Your task to perform on an android device: toggle sleep mode Image 0: 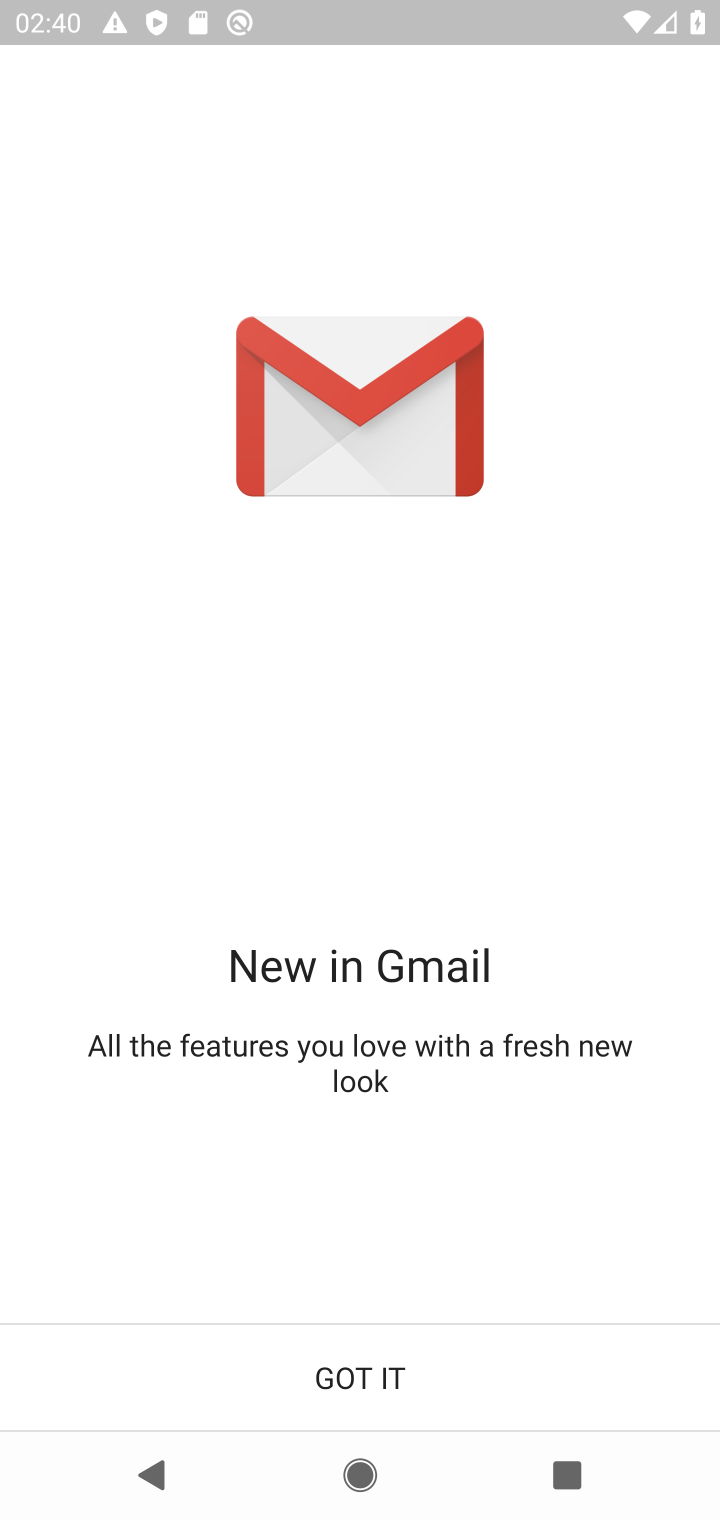
Step 0: press home button
Your task to perform on an android device: toggle sleep mode Image 1: 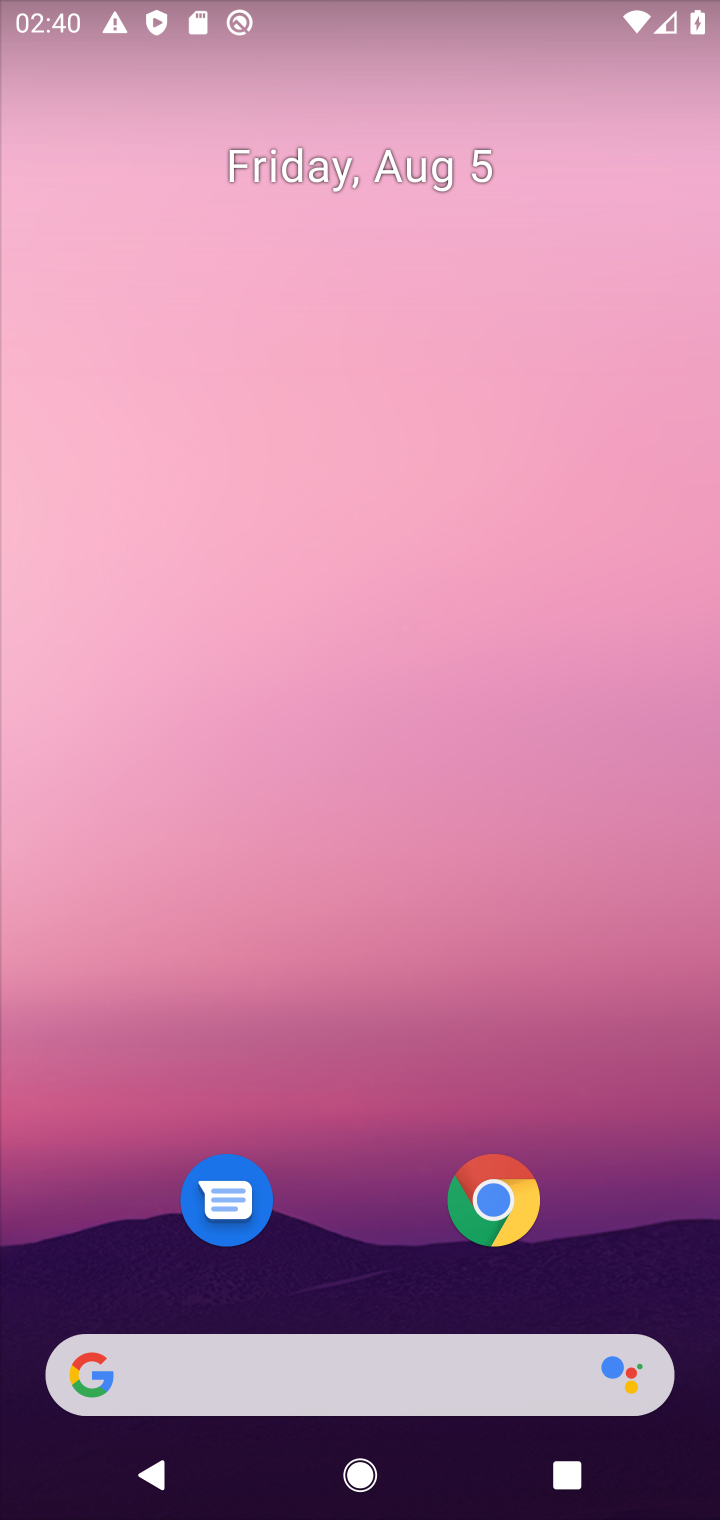
Step 1: drag from (394, 707) to (394, 302)
Your task to perform on an android device: toggle sleep mode Image 2: 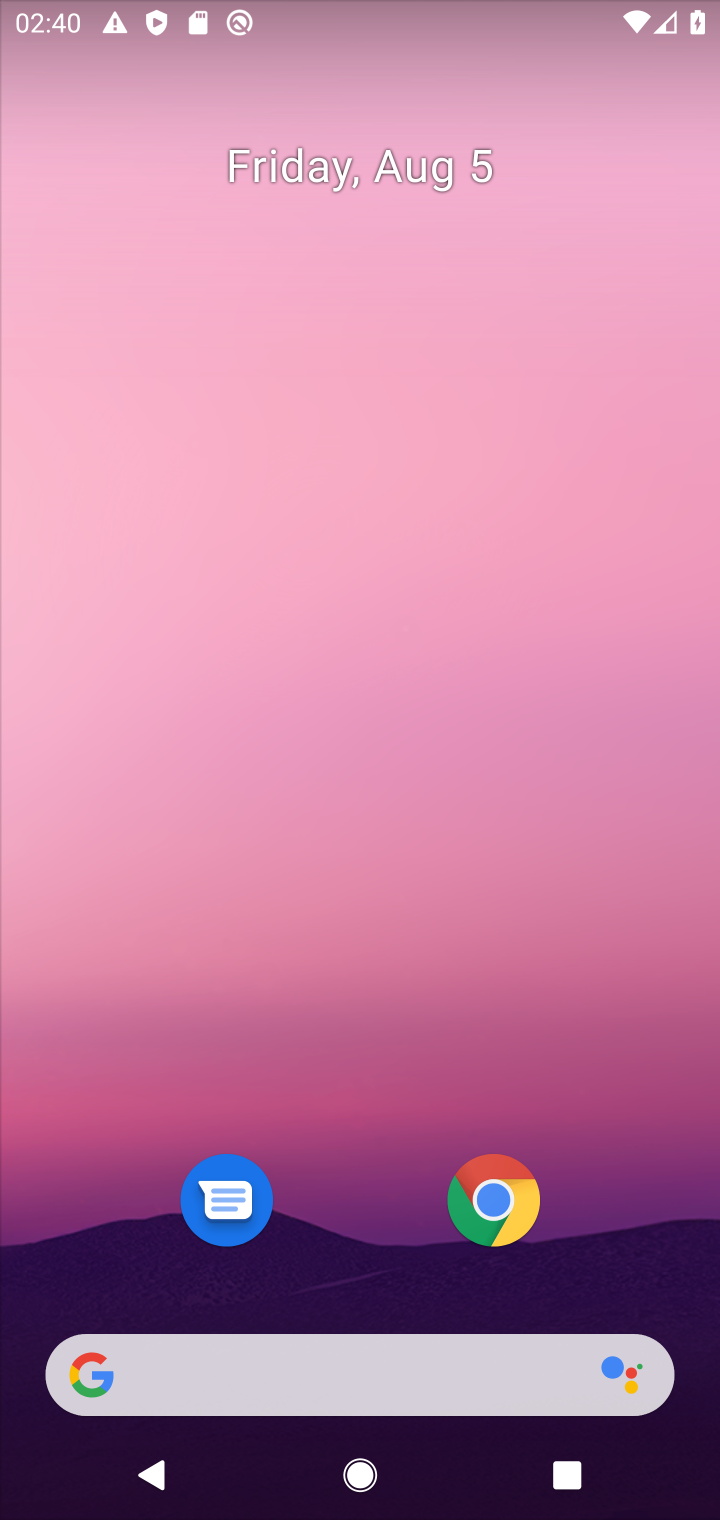
Step 2: drag from (364, 1194) to (387, 346)
Your task to perform on an android device: toggle sleep mode Image 3: 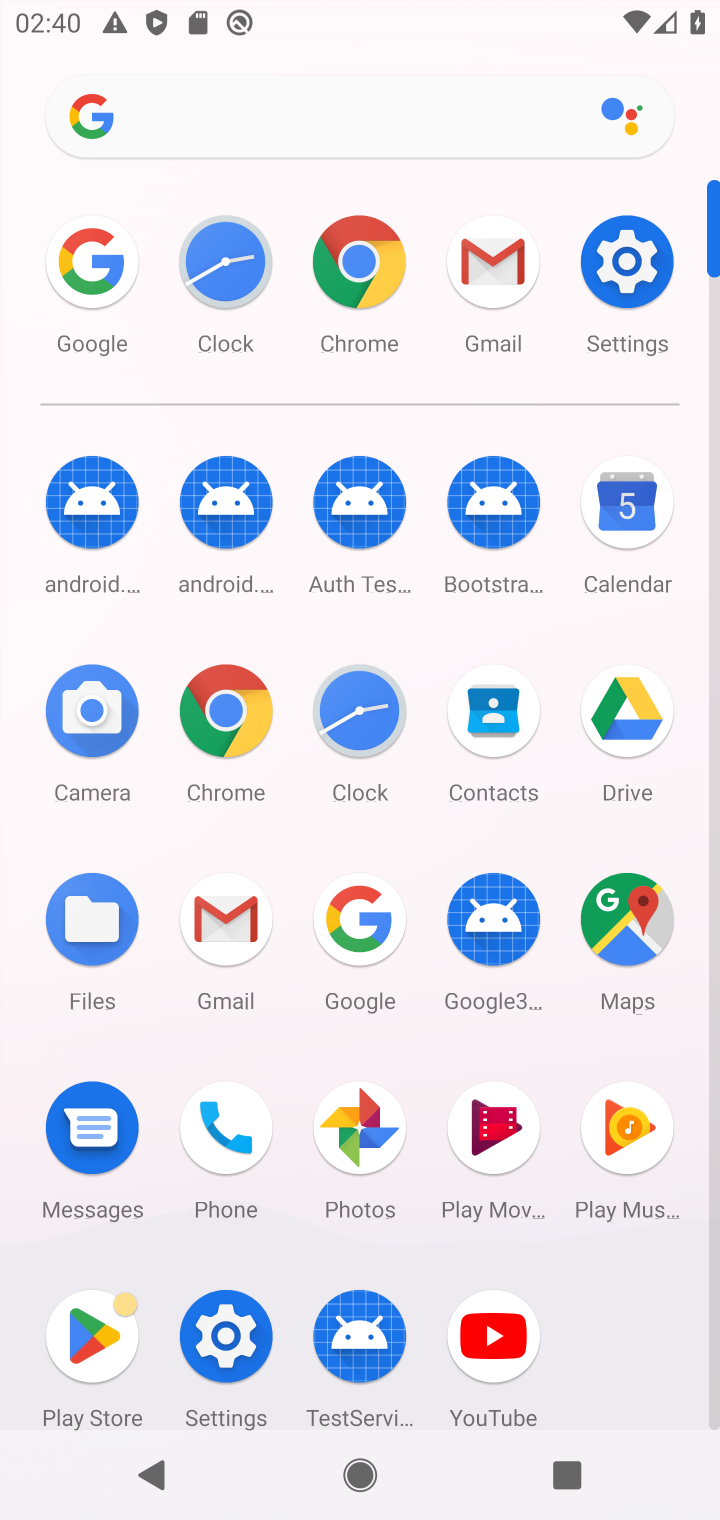
Step 3: click (597, 262)
Your task to perform on an android device: toggle sleep mode Image 4: 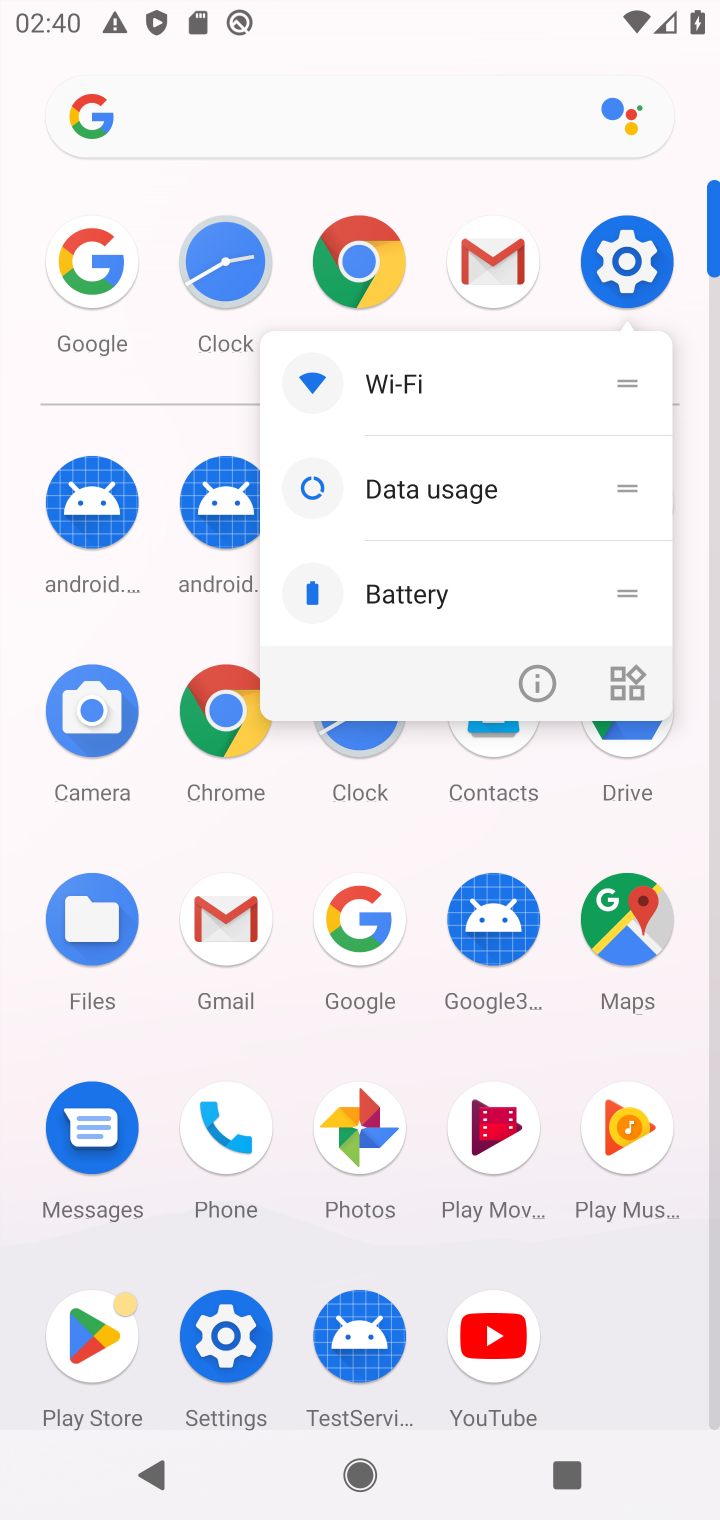
Step 4: click (597, 262)
Your task to perform on an android device: toggle sleep mode Image 5: 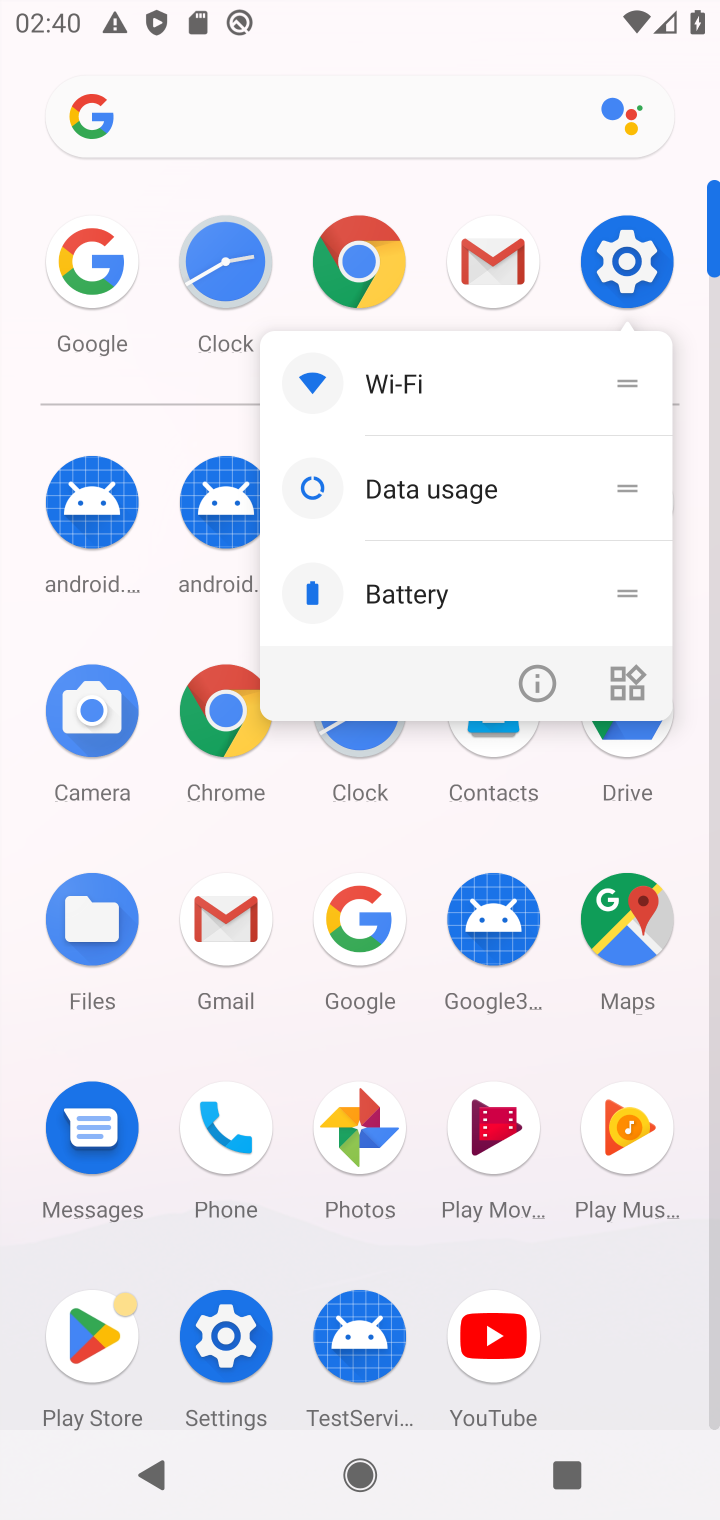
Step 5: click (611, 255)
Your task to perform on an android device: toggle sleep mode Image 6: 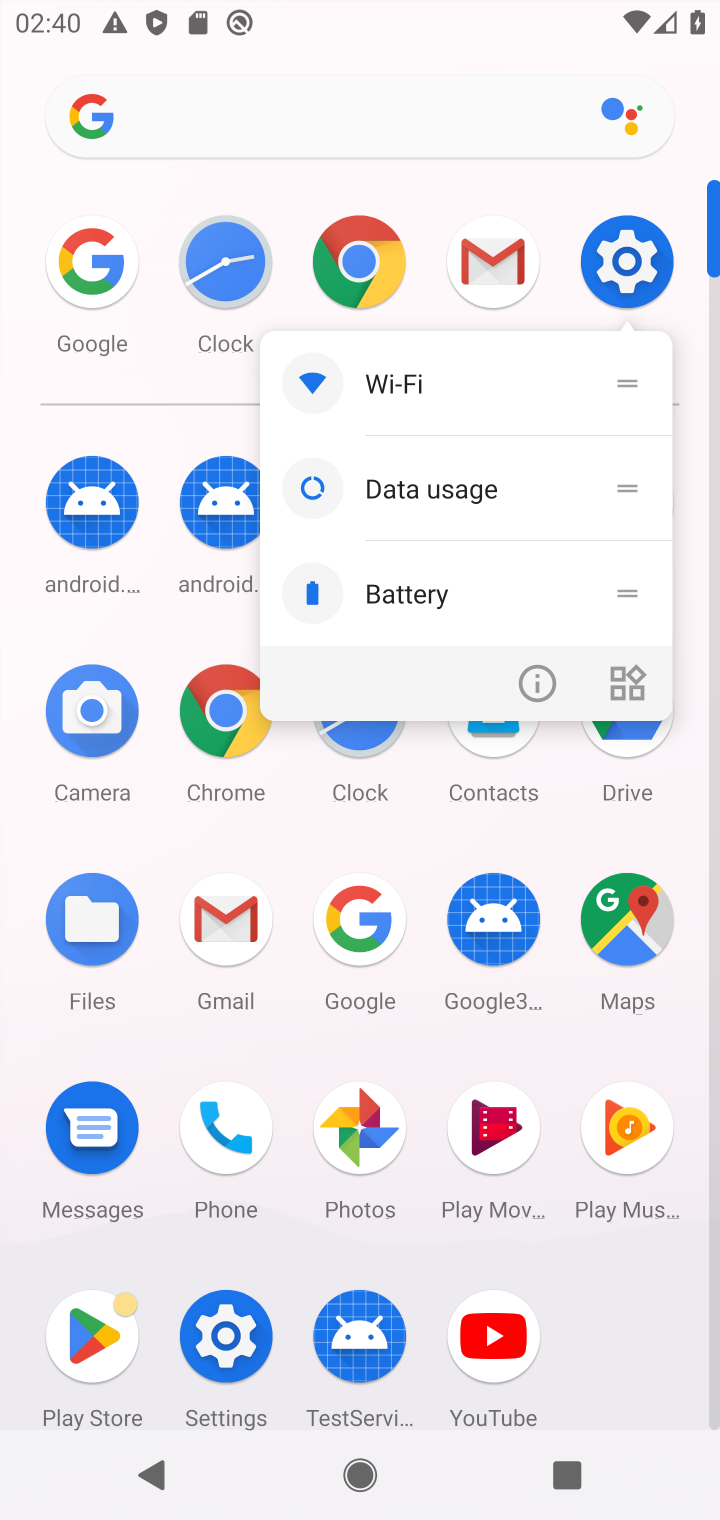
Step 6: click (611, 255)
Your task to perform on an android device: toggle sleep mode Image 7: 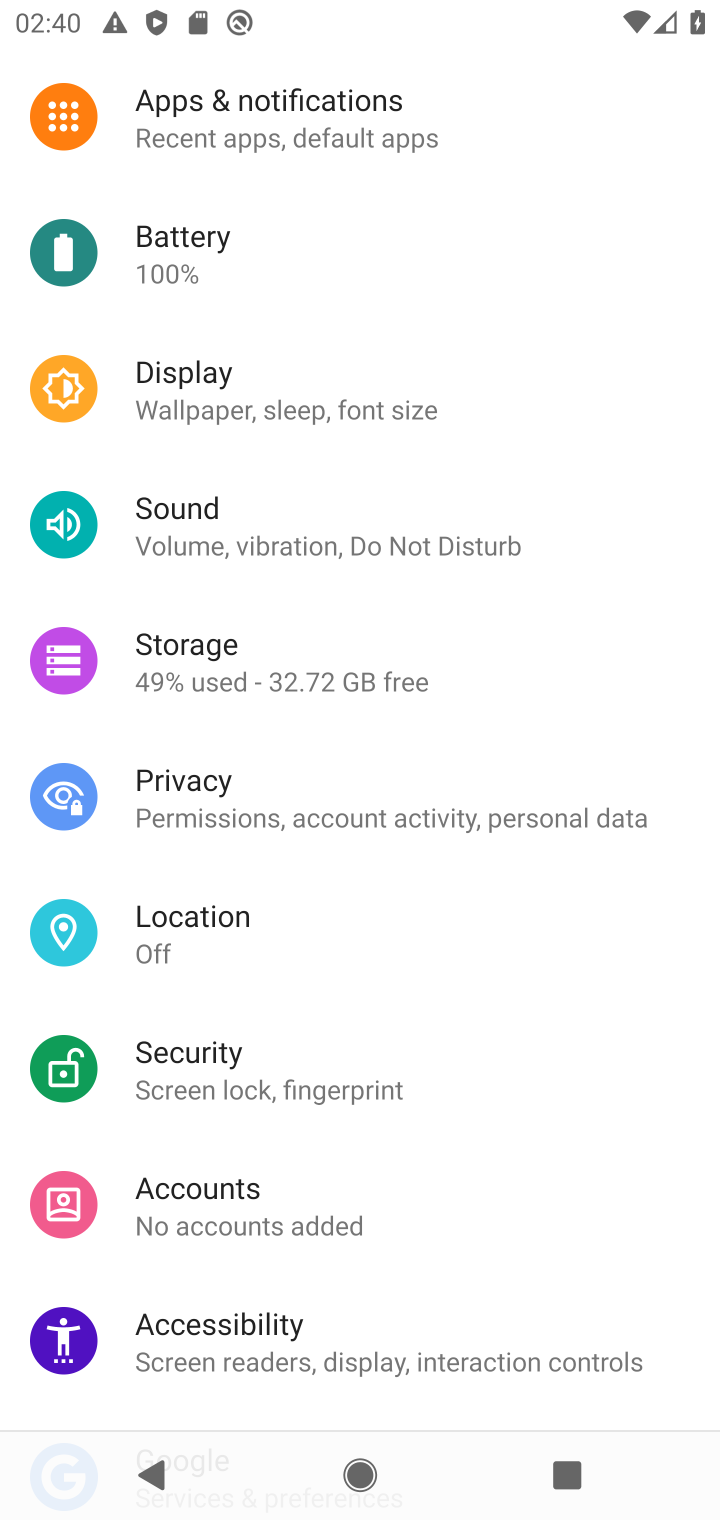
Step 7: click (254, 410)
Your task to perform on an android device: toggle sleep mode Image 8: 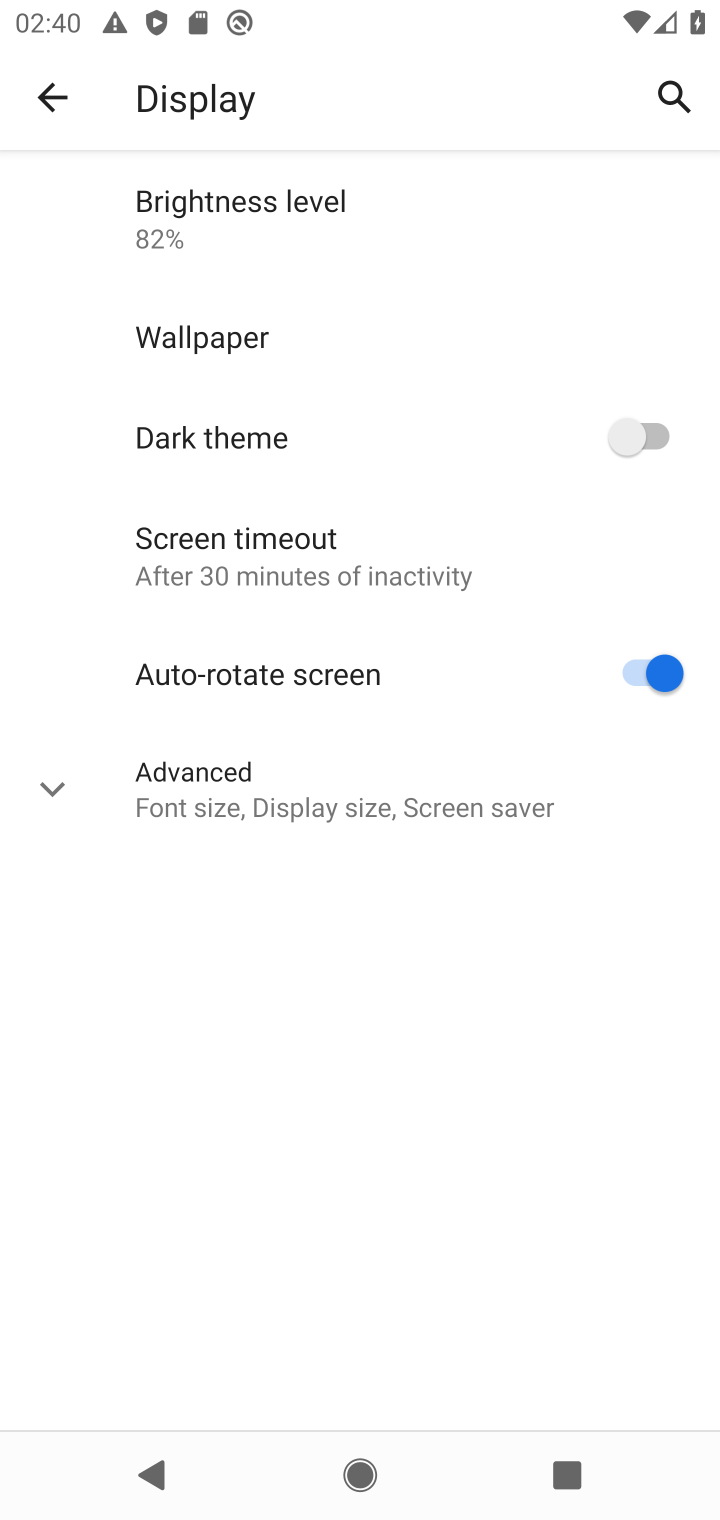
Step 8: click (273, 563)
Your task to perform on an android device: toggle sleep mode Image 9: 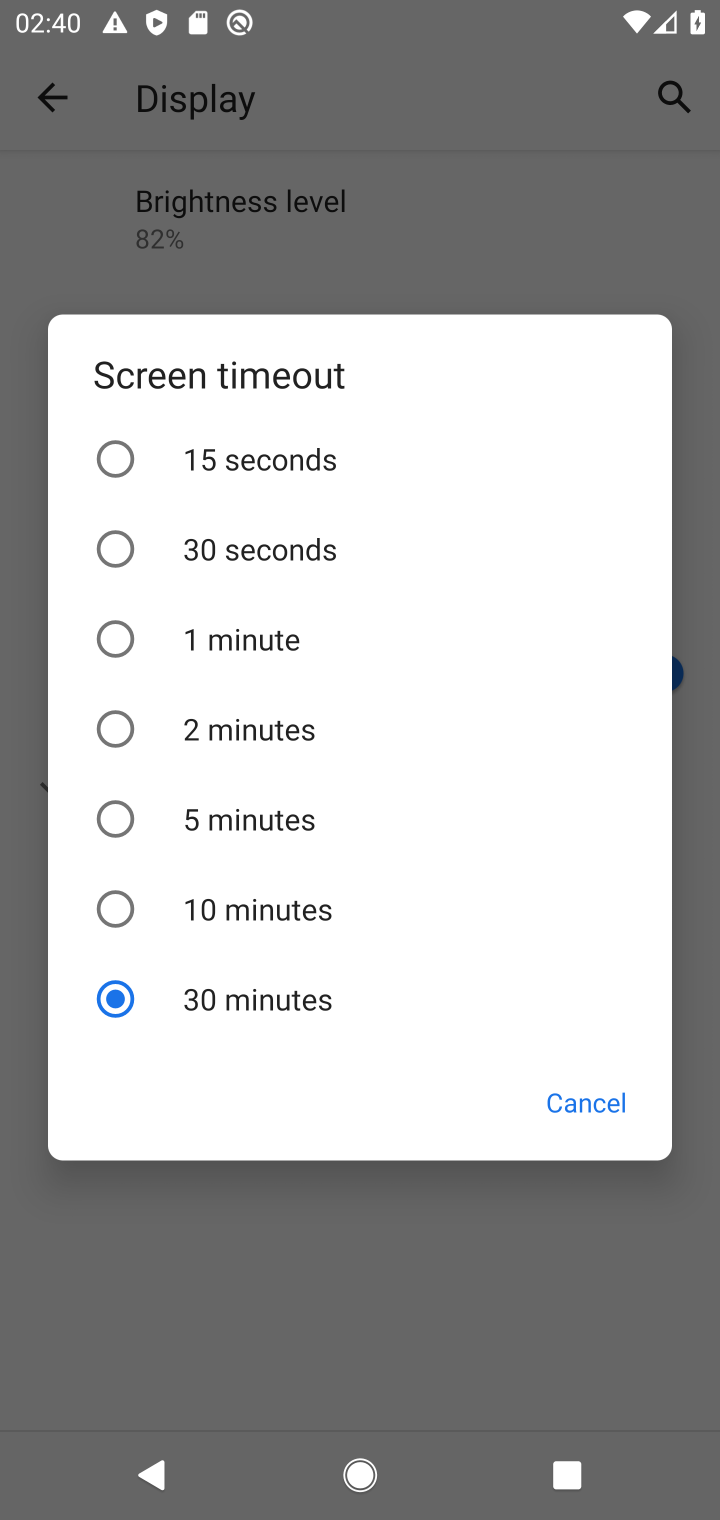
Step 9: click (278, 567)
Your task to perform on an android device: toggle sleep mode Image 10: 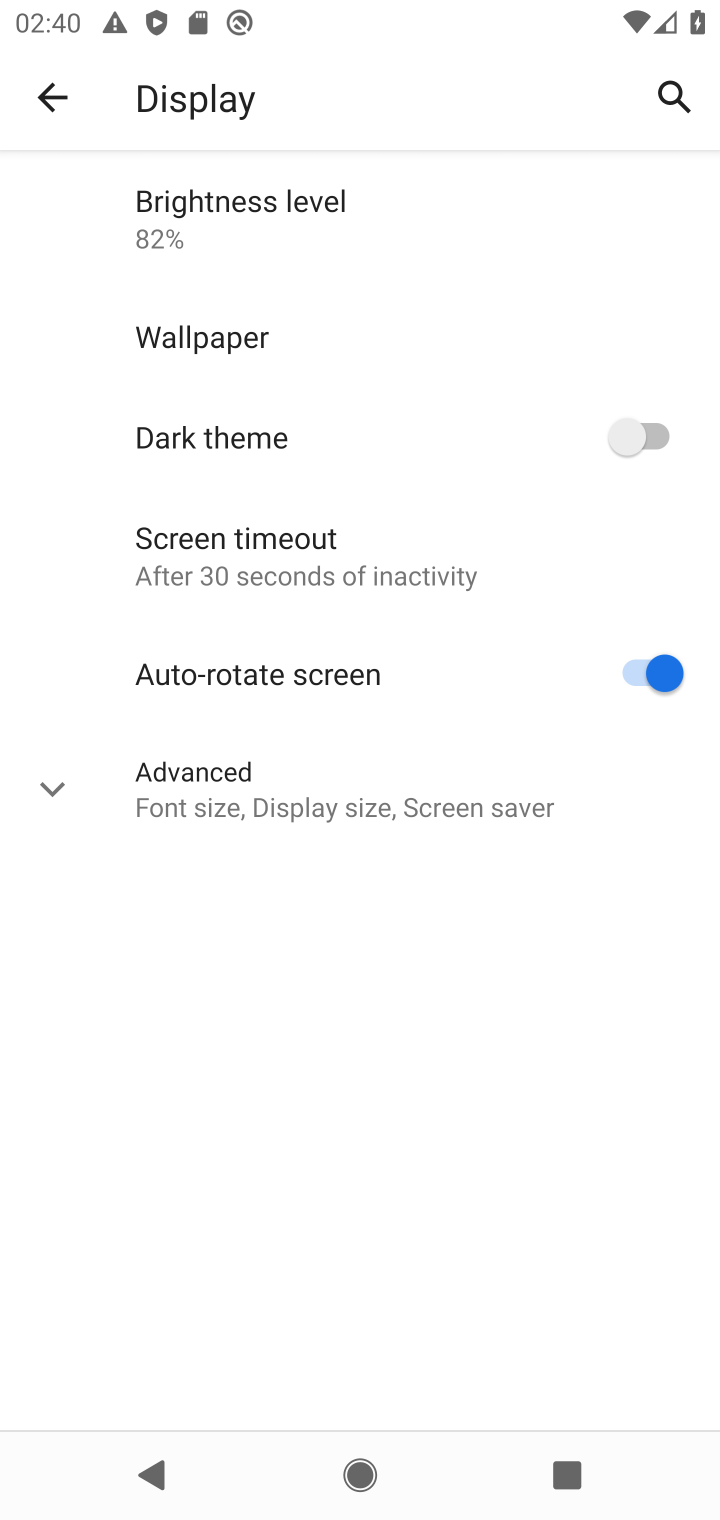
Step 10: task complete